Your task to perform on an android device: open app "Messages" (install if not already installed) Image 0: 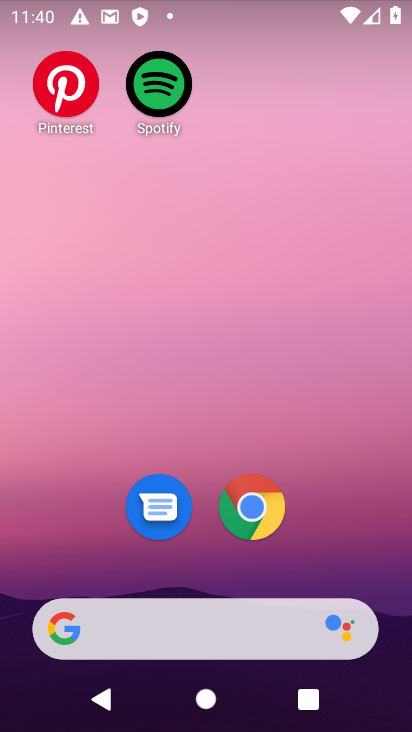
Step 0: drag from (224, 566) to (211, 14)
Your task to perform on an android device: open app "Messages" (install if not already installed) Image 1: 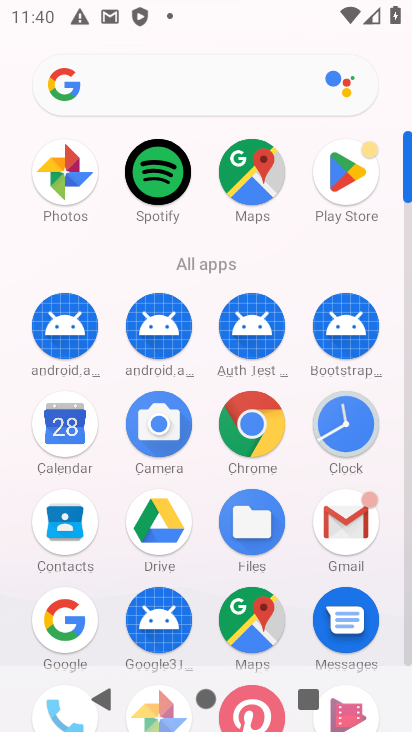
Step 1: click (354, 626)
Your task to perform on an android device: open app "Messages" (install if not already installed) Image 2: 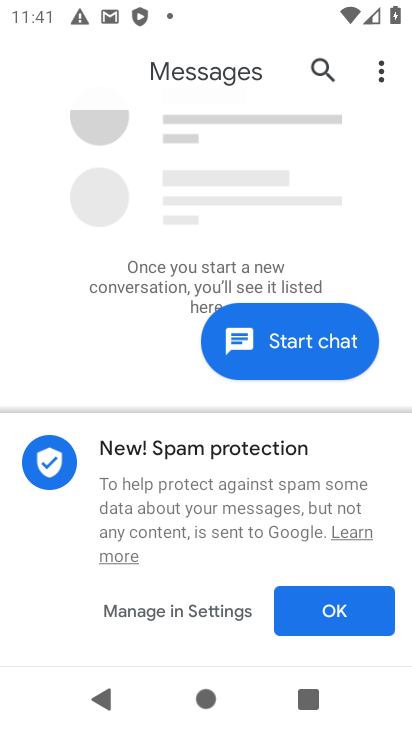
Step 2: click (304, 624)
Your task to perform on an android device: open app "Messages" (install if not already installed) Image 3: 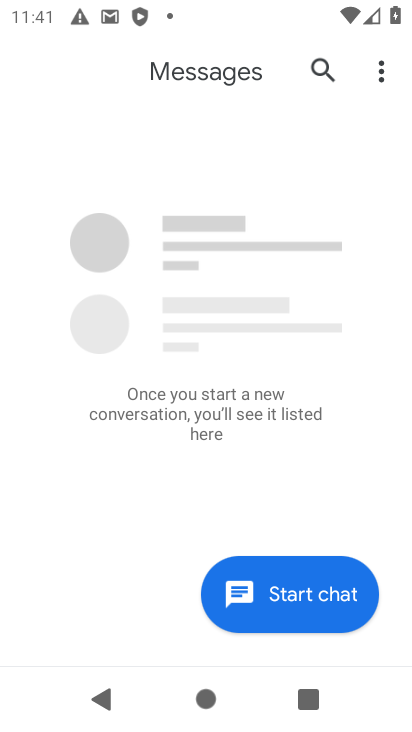
Step 3: task complete